Your task to perform on an android device: change the clock display to analog Image 0: 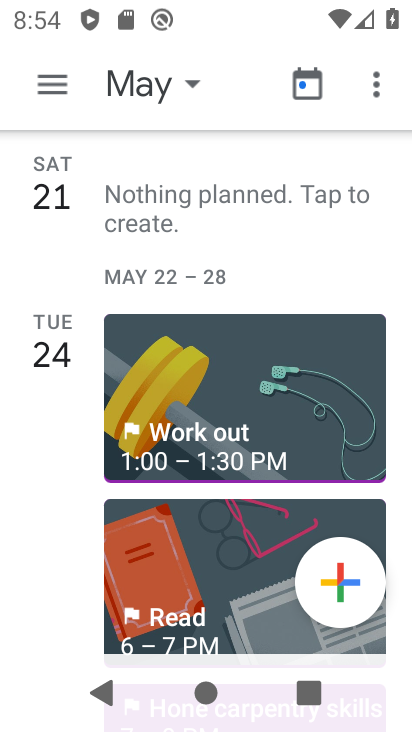
Step 0: press home button
Your task to perform on an android device: change the clock display to analog Image 1: 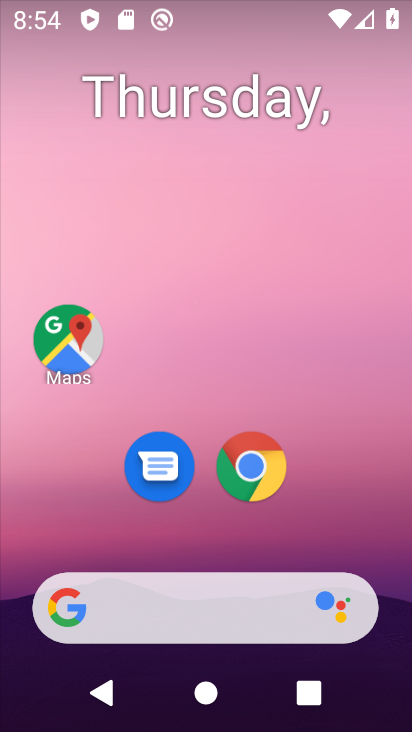
Step 1: drag from (197, 615) to (291, 232)
Your task to perform on an android device: change the clock display to analog Image 2: 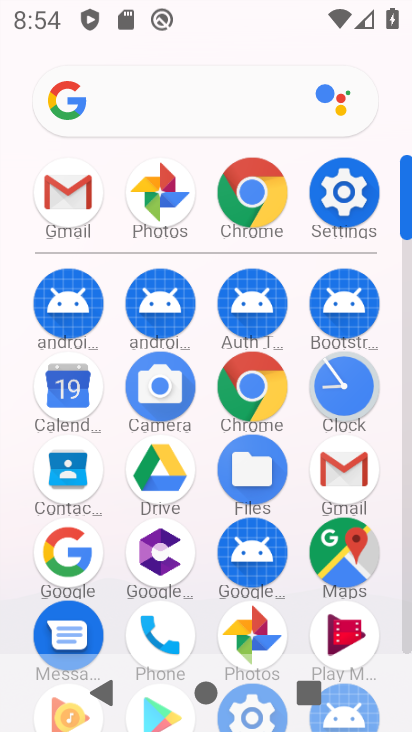
Step 2: click (335, 385)
Your task to perform on an android device: change the clock display to analog Image 3: 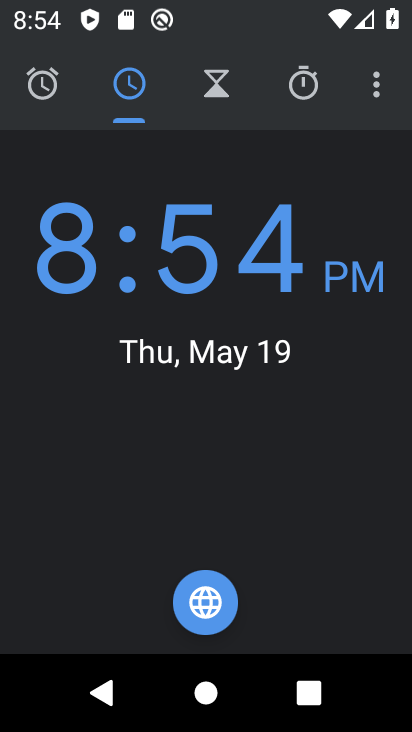
Step 3: click (375, 91)
Your task to perform on an android device: change the clock display to analog Image 4: 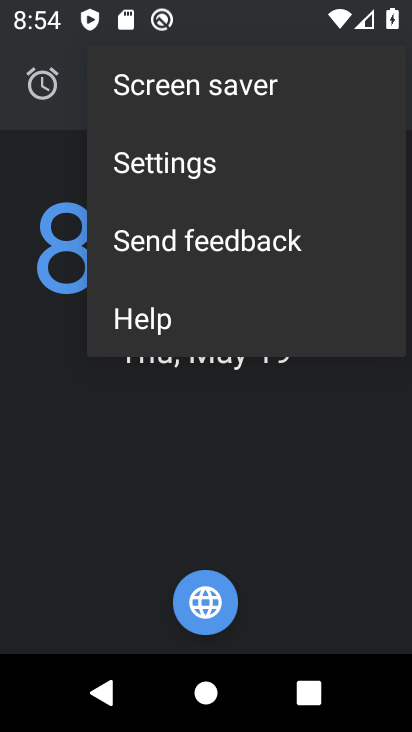
Step 4: click (207, 170)
Your task to perform on an android device: change the clock display to analog Image 5: 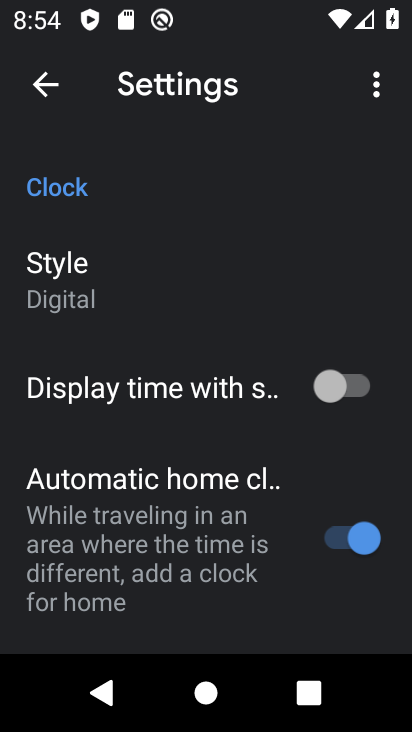
Step 5: click (65, 296)
Your task to perform on an android device: change the clock display to analog Image 6: 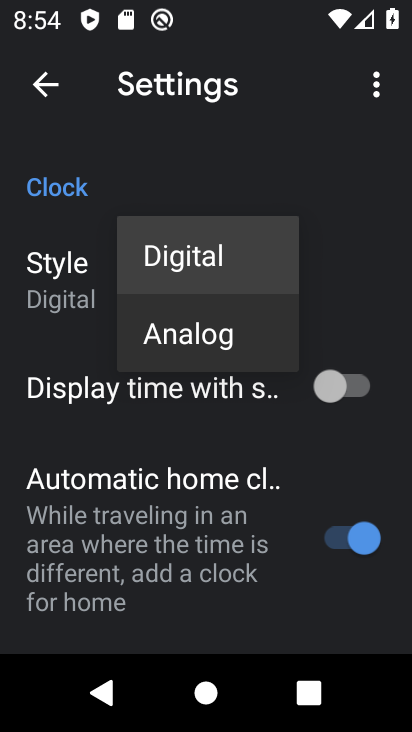
Step 6: click (160, 328)
Your task to perform on an android device: change the clock display to analog Image 7: 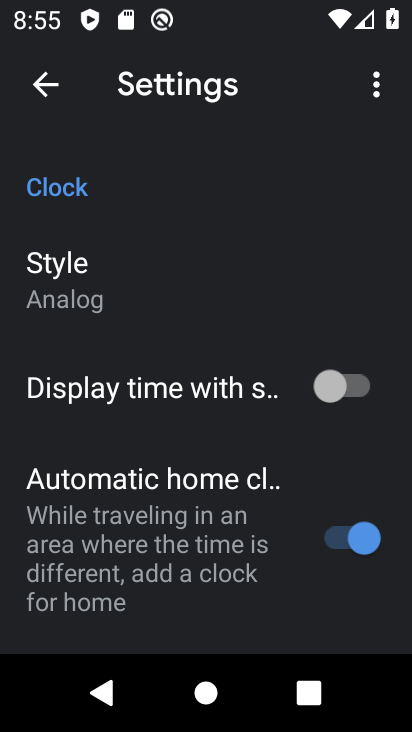
Step 7: task complete